Your task to perform on an android device: clear history in the chrome app Image 0: 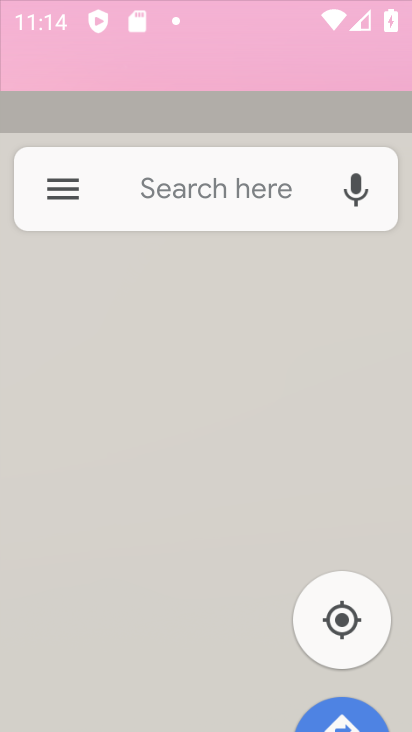
Step 0: drag from (337, 176) to (329, 5)
Your task to perform on an android device: clear history in the chrome app Image 1: 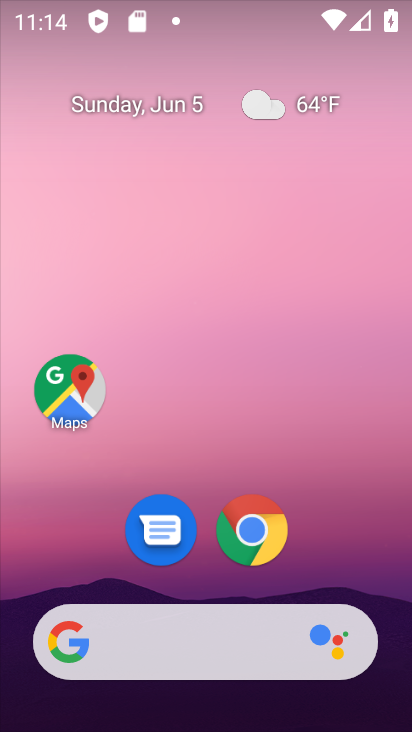
Step 1: drag from (343, 572) to (345, 62)
Your task to perform on an android device: clear history in the chrome app Image 2: 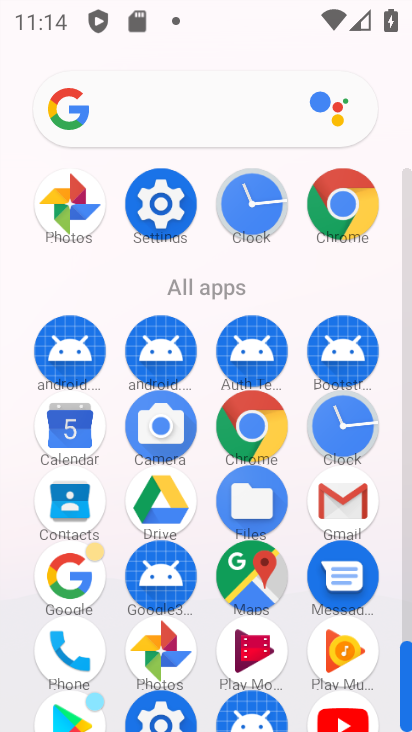
Step 2: click (341, 437)
Your task to perform on an android device: clear history in the chrome app Image 3: 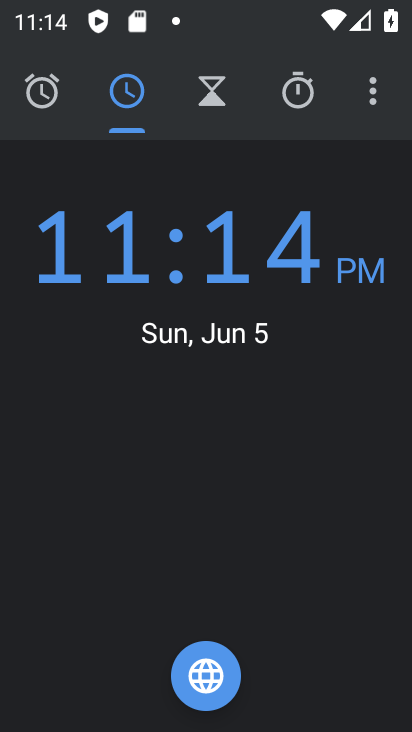
Step 3: press home button
Your task to perform on an android device: clear history in the chrome app Image 4: 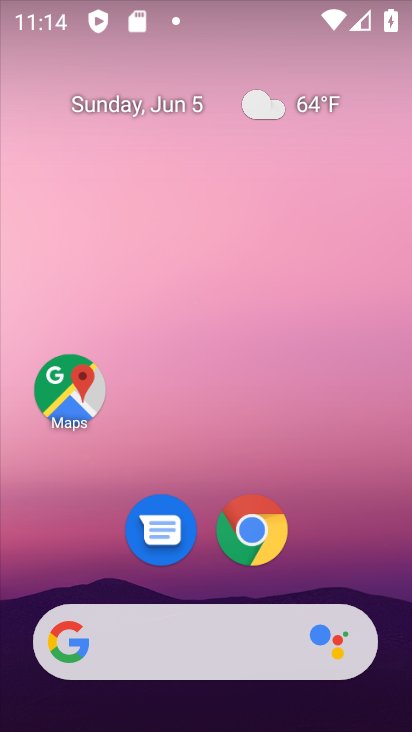
Step 4: drag from (340, 581) to (394, 45)
Your task to perform on an android device: clear history in the chrome app Image 5: 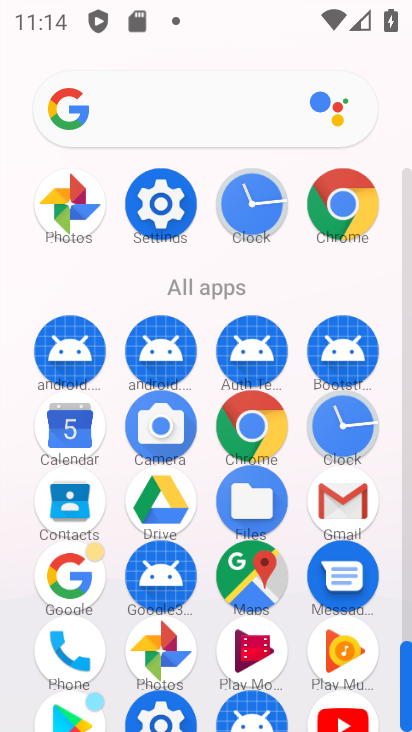
Step 5: click (353, 193)
Your task to perform on an android device: clear history in the chrome app Image 6: 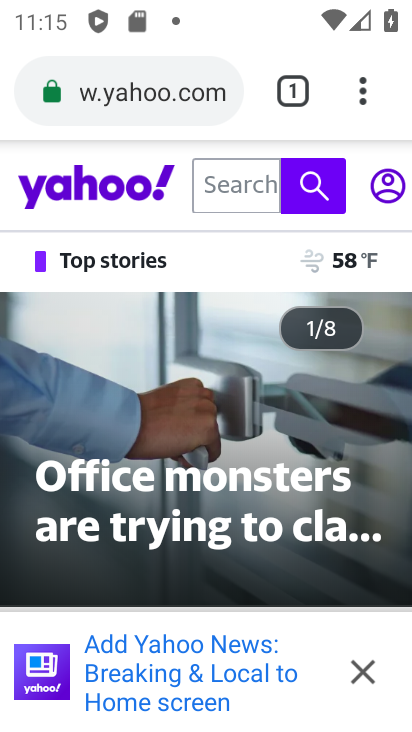
Step 6: drag from (354, 85) to (41, 536)
Your task to perform on an android device: clear history in the chrome app Image 7: 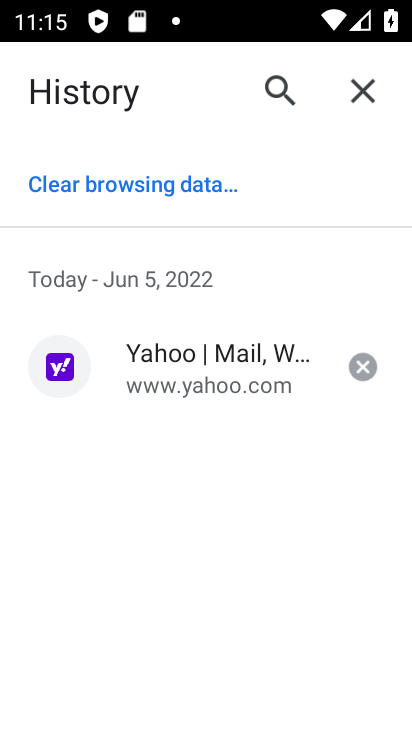
Step 7: click (57, 160)
Your task to perform on an android device: clear history in the chrome app Image 8: 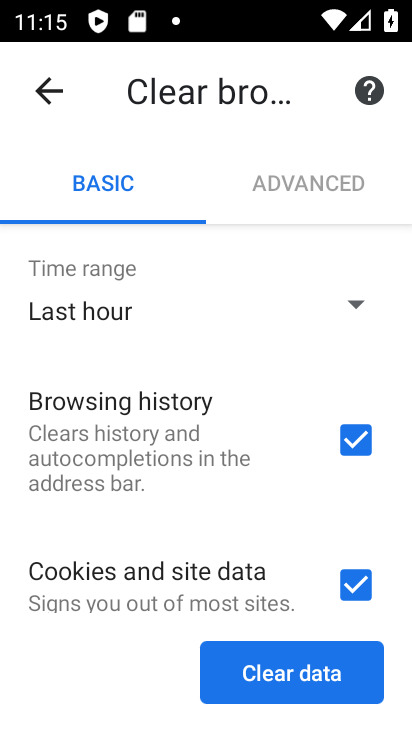
Step 8: drag from (129, 609) to (196, 278)
Your task to perform on an android device: clear history in the chrome app Image 9: 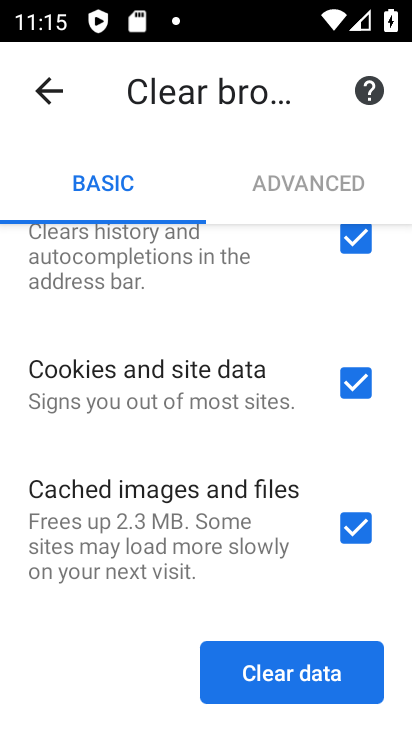
Step 9: click (356, 681)
Your task to perform on an android device: clear history in the chrome app Image 10: 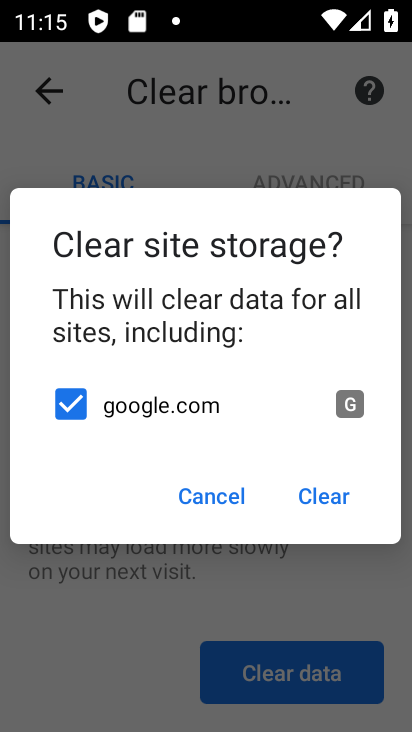
Step 10: click (319, 494)
Your task to perform on an android device: clear history in the chrome app Image 11: 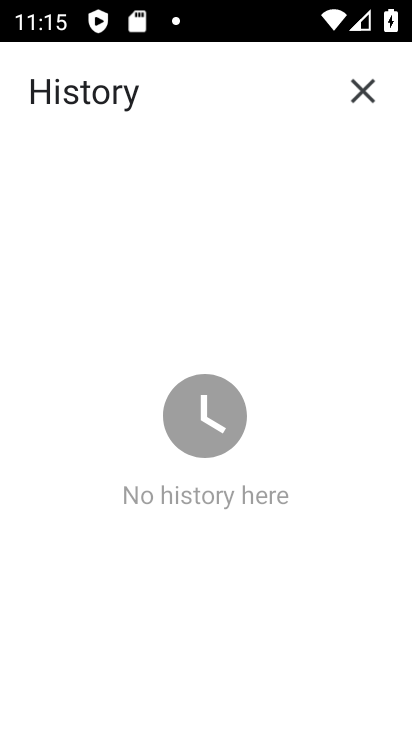
Step 11: task complete